Your task to perform on an android device: Do I have any events this weekend? Image 0: 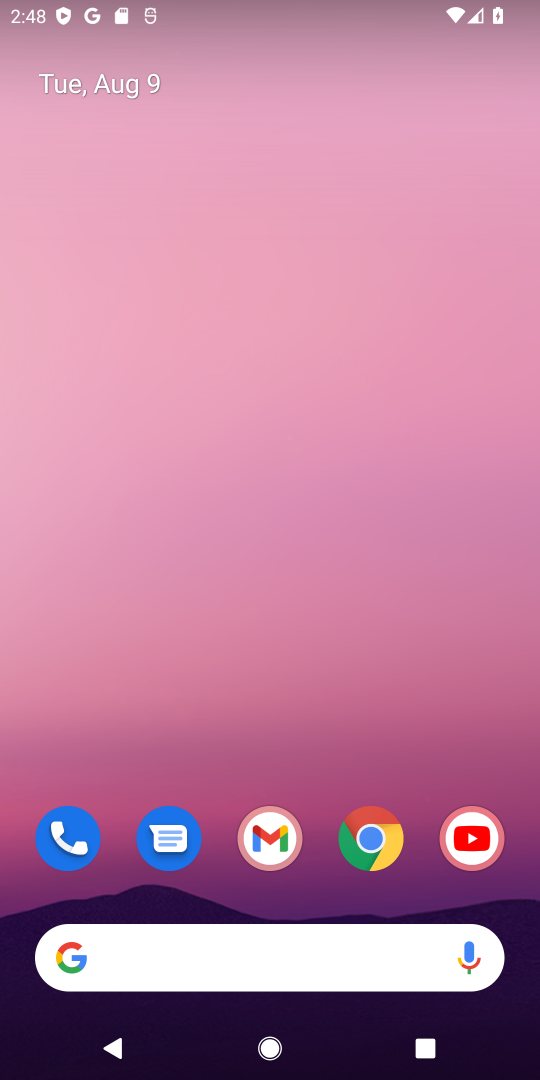
Step 0: drag from (346, 890) to (427, 58)
Your task to perform on an android device: Do I have any events this weekend? Image 1: 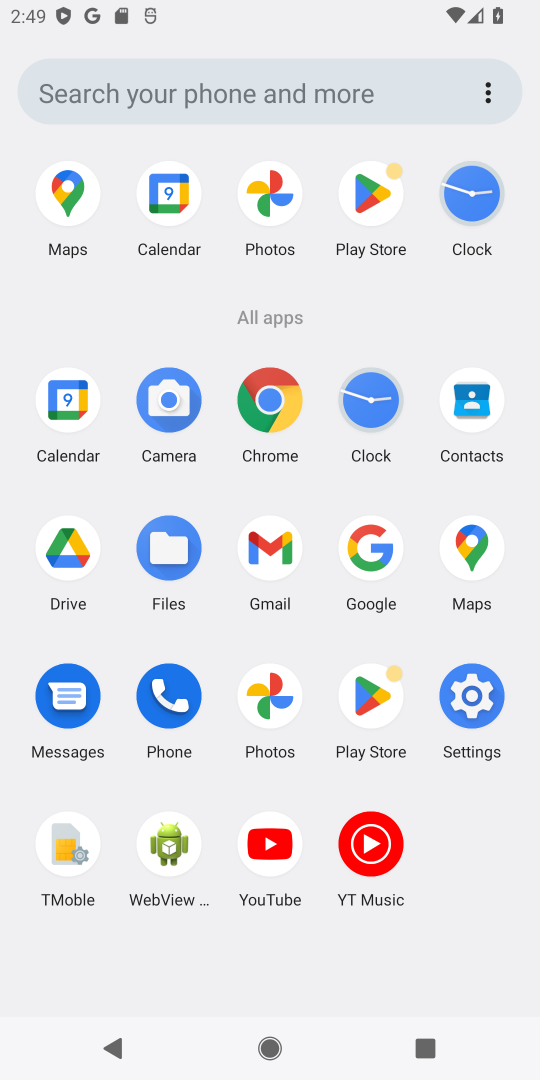
Step 1: click (47, 398)
Your task to perform on an android device: Do I have any events this weekend? Image 2: 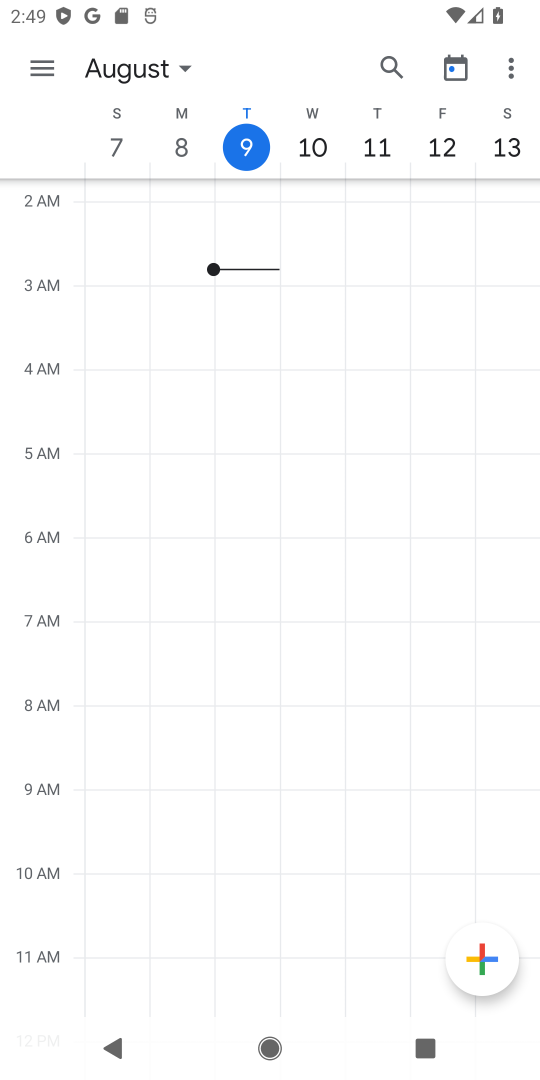
Step 2: click (503, 133)
Your task to perform on an android device: Do I have any events this weekend? Image 3: 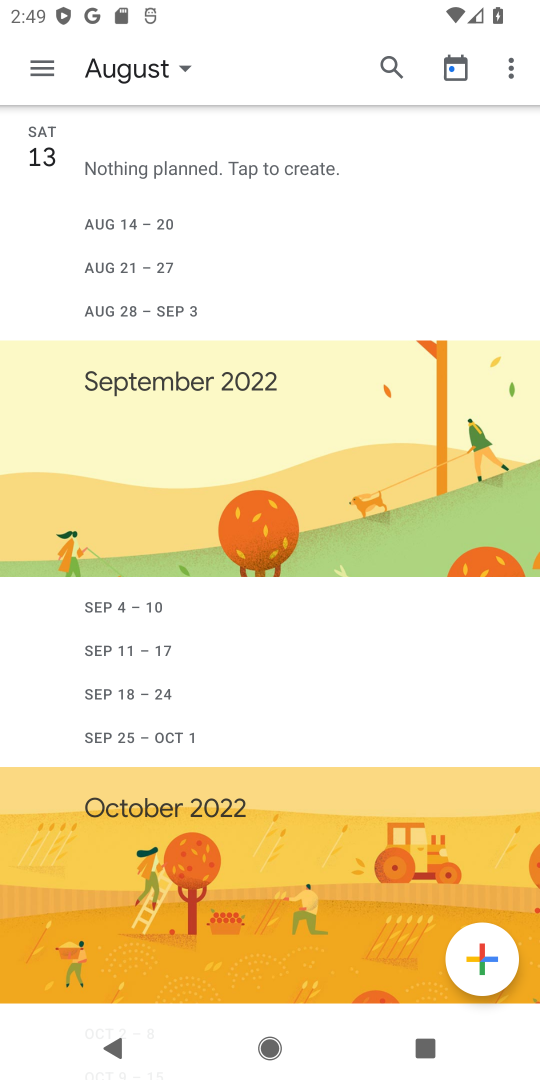
Step 3: task complete